Your task to perform on an android device: Search for floor lamps on article.com Image 0: 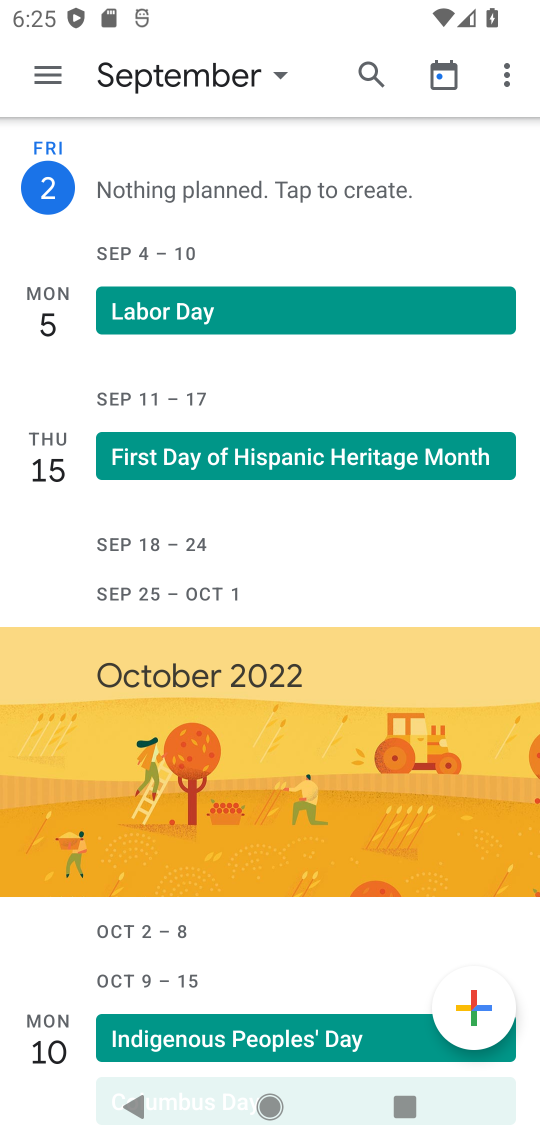
Step 0: press home button
Your task to perform on an android device: Search for floor lamps on article.com Image 1: 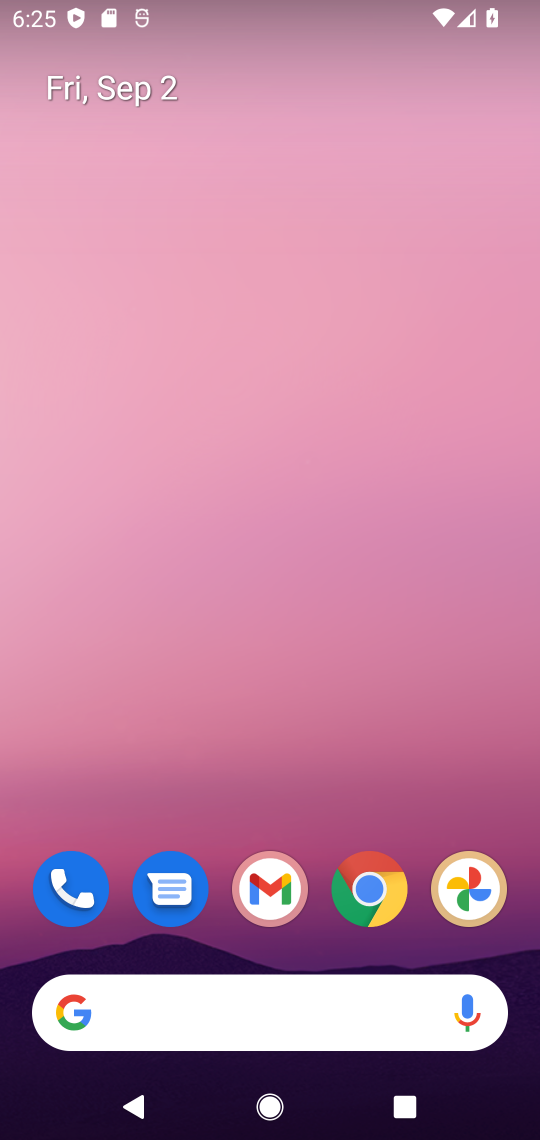
Step 1: click (230, 1028)
Your task to perform on an android device: Search for floor lamps on article.com Image 2: 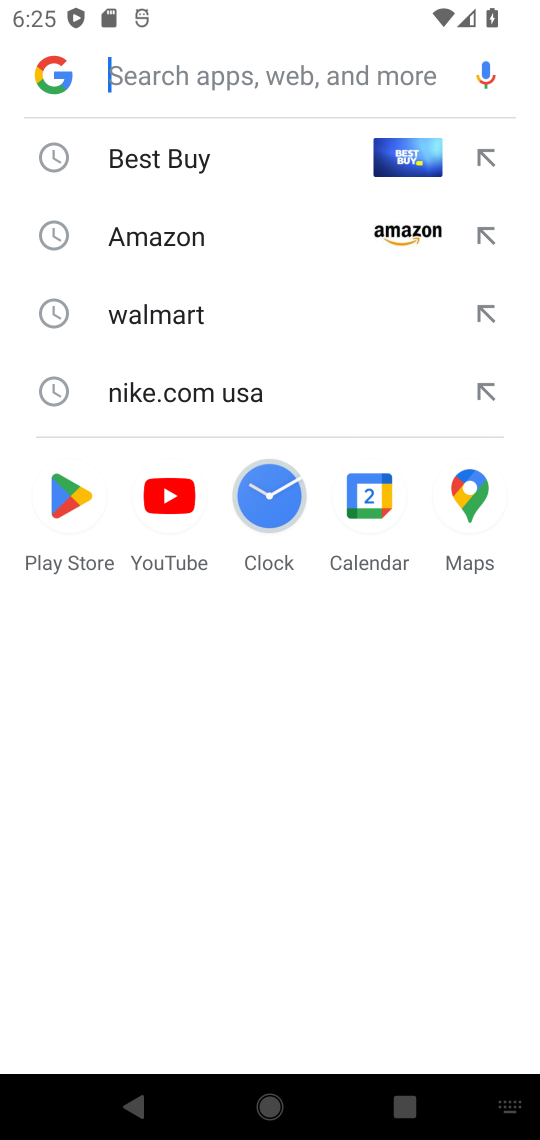
Step 2: type "article.com"
Your task to perform on an android device: Search for floor lamps on article.com Image 3: 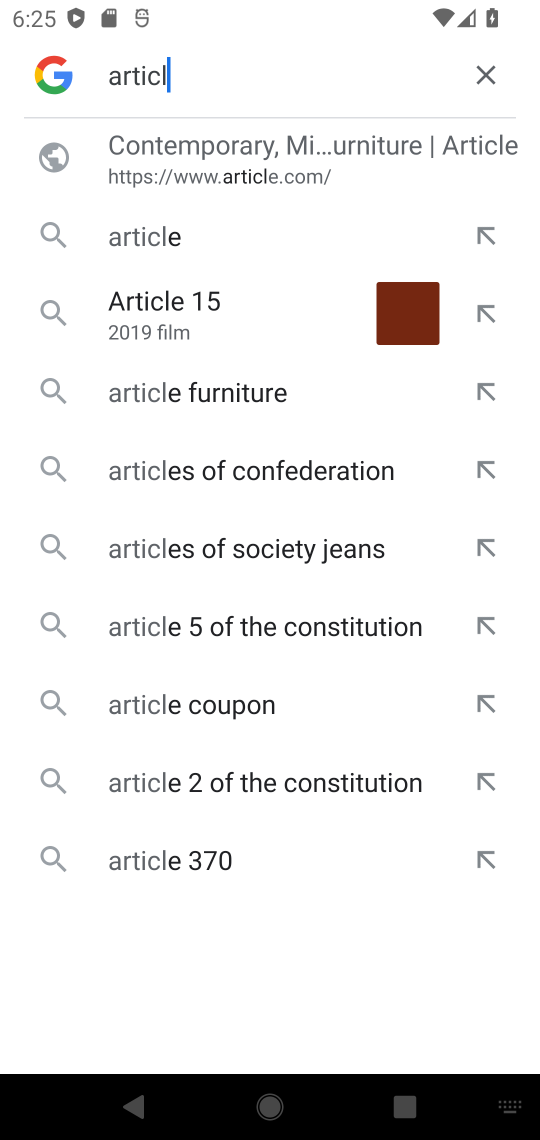
Step 3: type ""
Your task to perform on an android device: Search for floor lamps on article.com Image 4: 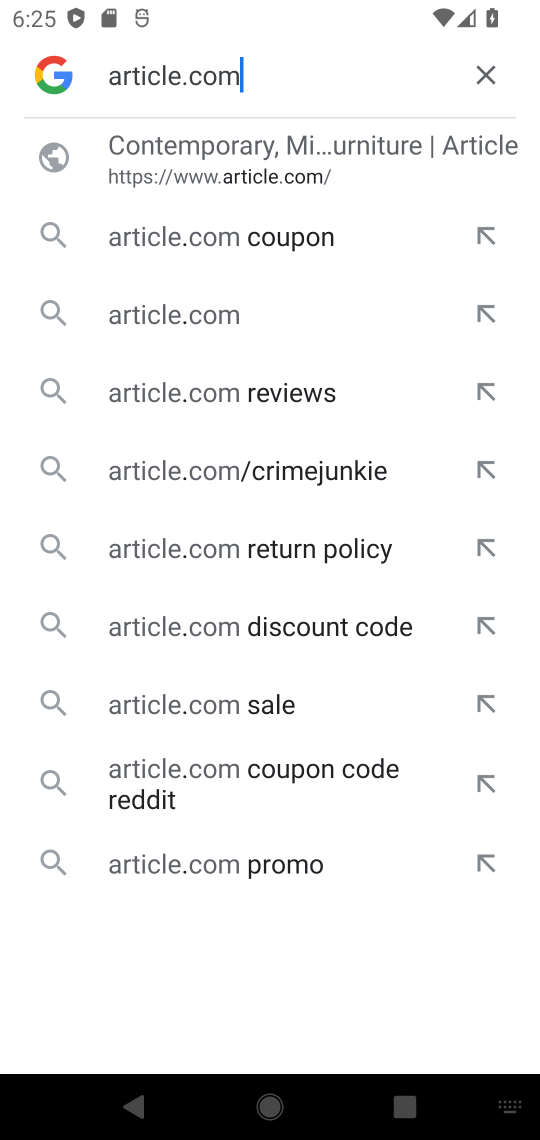
Step 4: click (240, 323)
Your task to perform on an android device: Search for floor lamps on article.com Image 5: 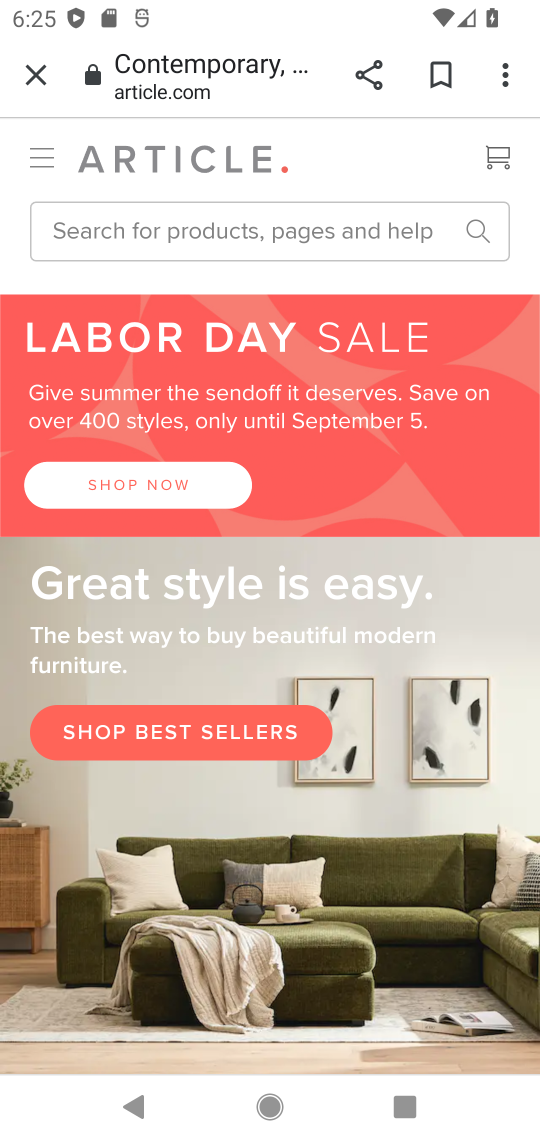
Step 5: click (163, 218)
Your task to perform on an android device: Search for floor lamps on article.com Image 6: 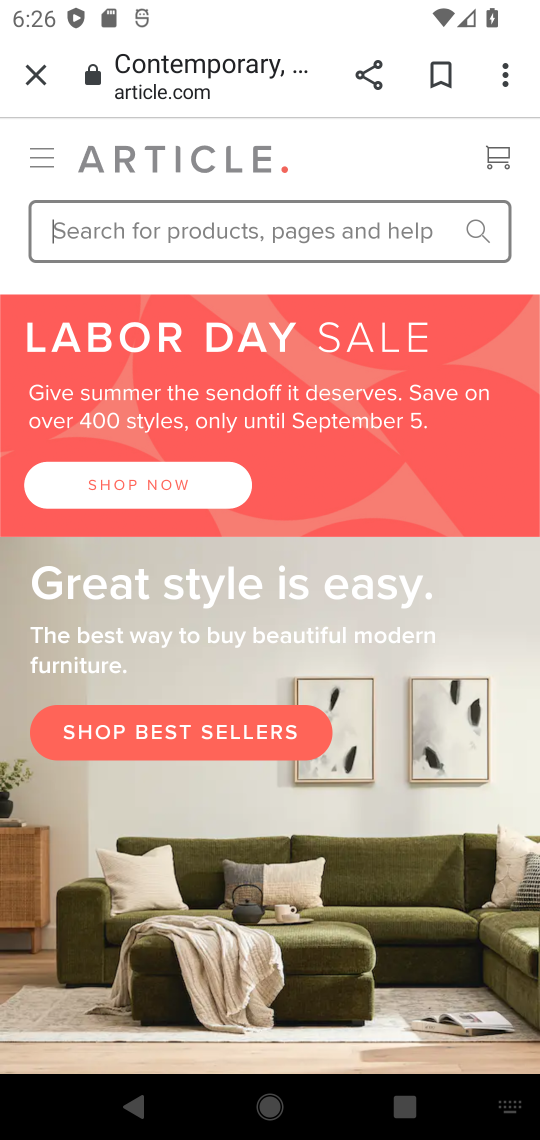
Step 6: type "floor lamps"
Your task to perform on an android device: Search for floor lamps on article.com Image 7: 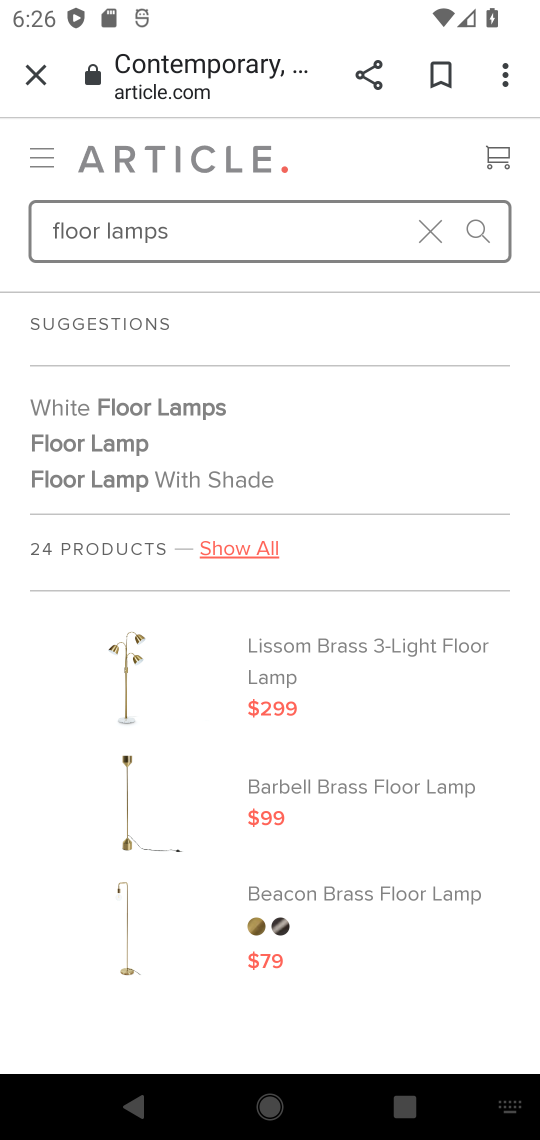
Step 7: task complete